Your task to perform on an android device: toggle notifications settings in the gmail app Image 0: 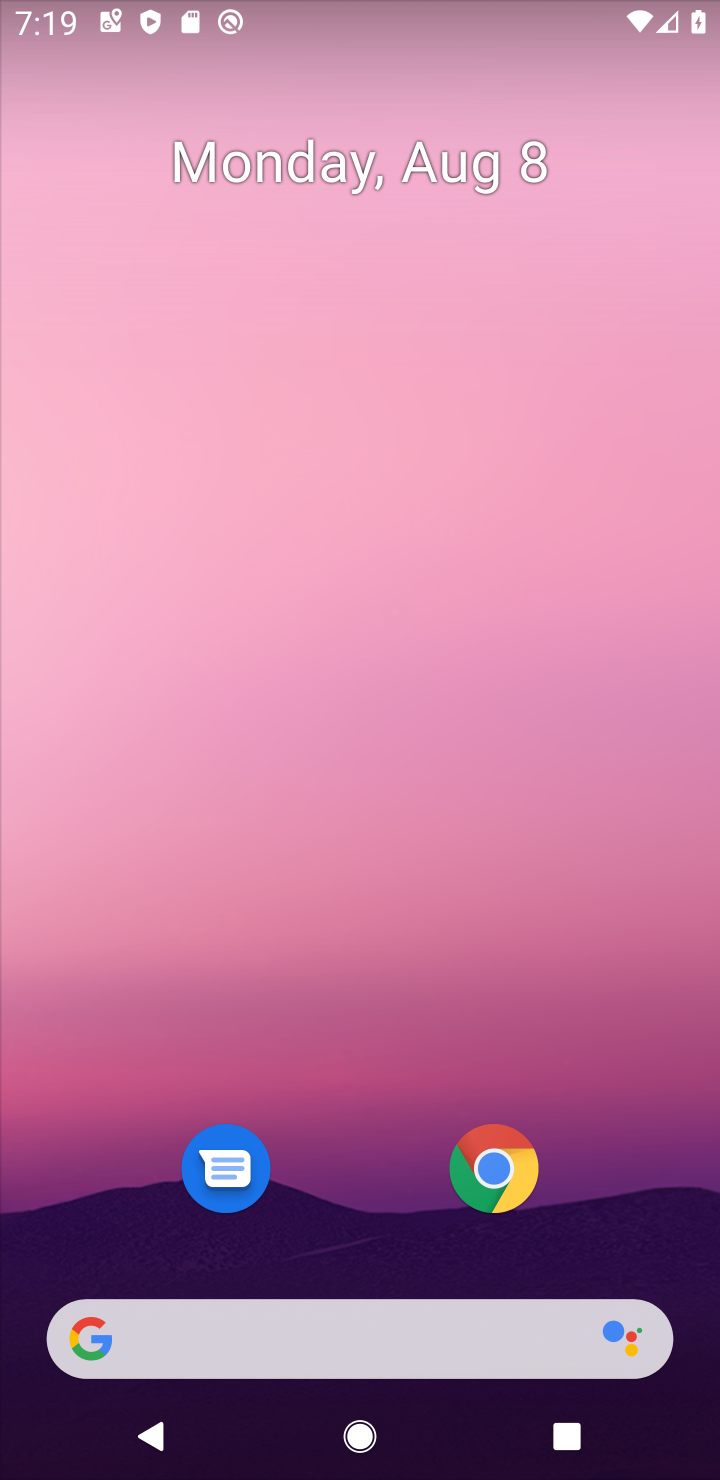
Step 0: drag from (619, 1249) to (290, 49)
Your task to perform on an android device: toggle notifications settings in the gmail app Image 1: 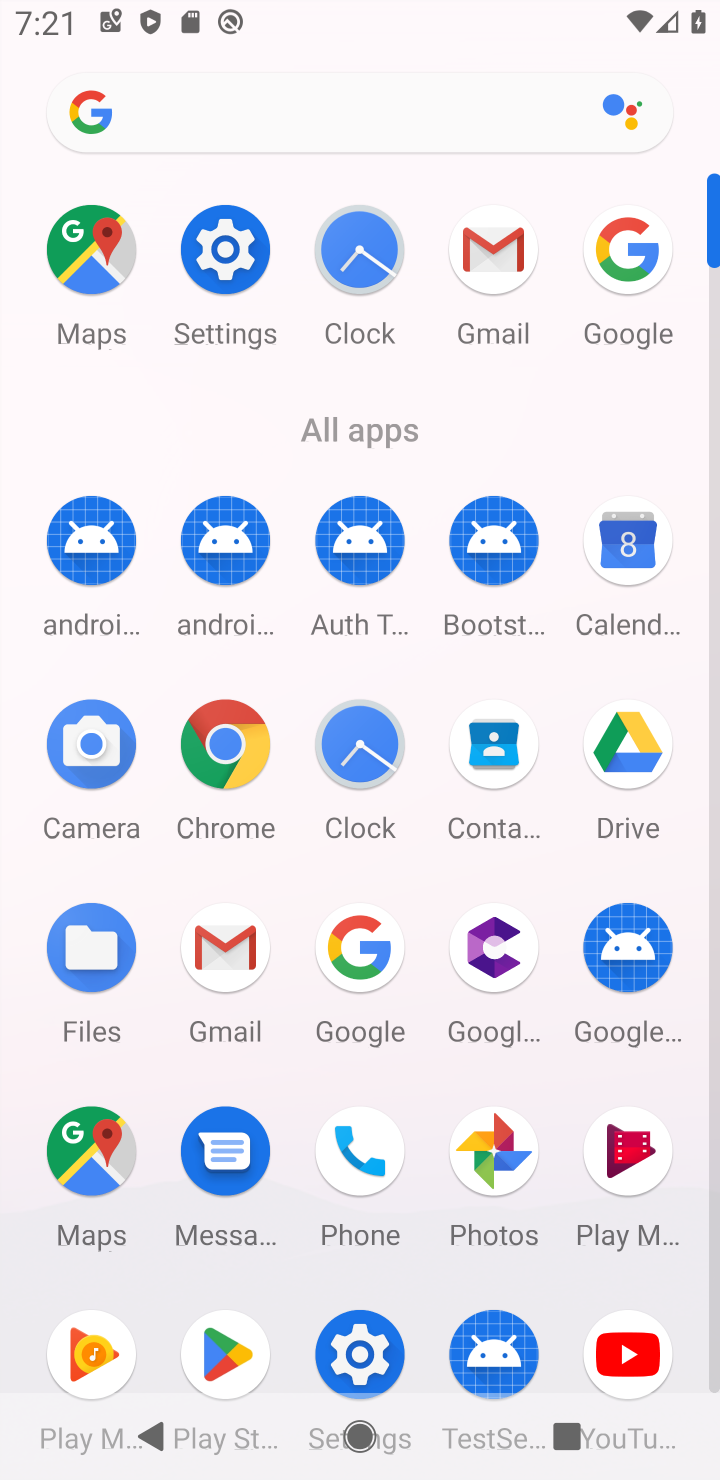
Step 1: click (247, 966)
Your task to perform on an android device: toggle notifications settings in the gmail app Image 2: 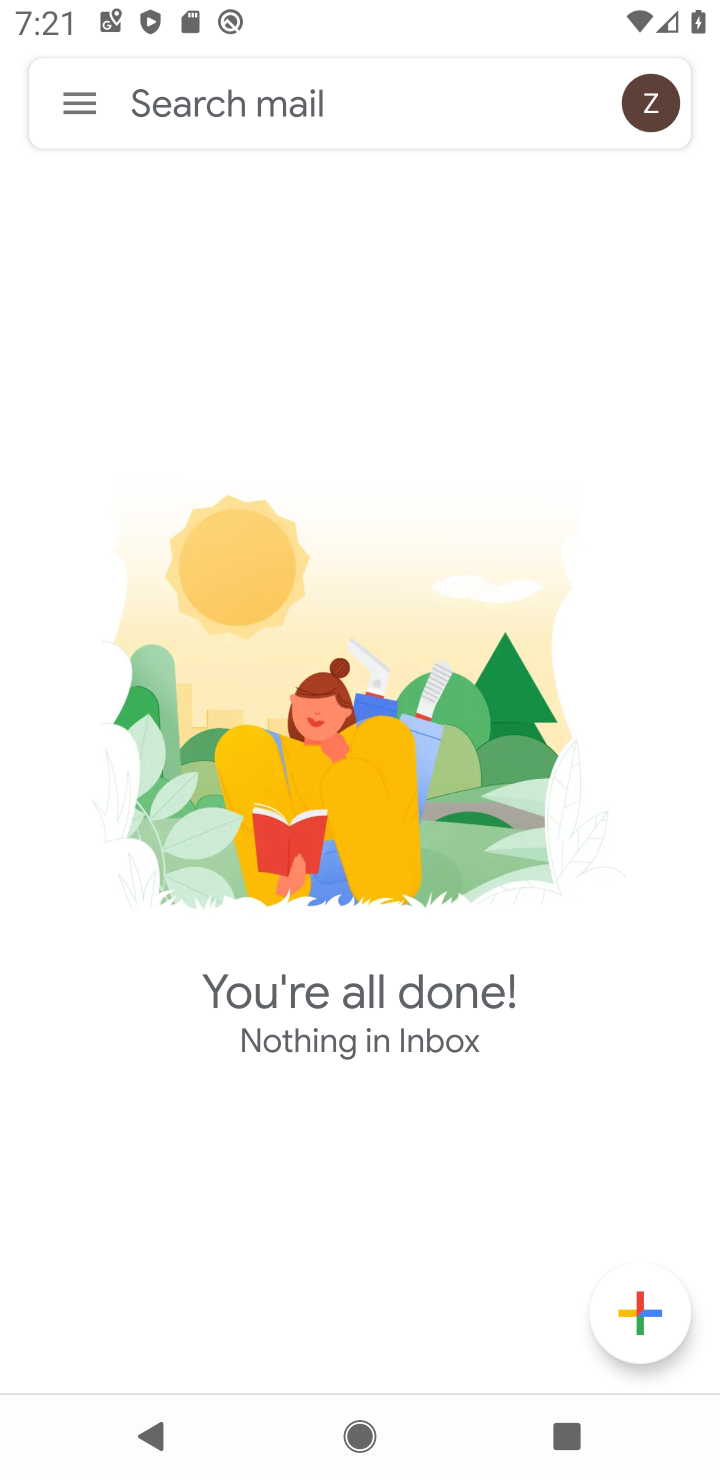
Step 2: click (85, 102)
Your task to perform on an android device: toggle notifications settings in the gmail app Image 3: 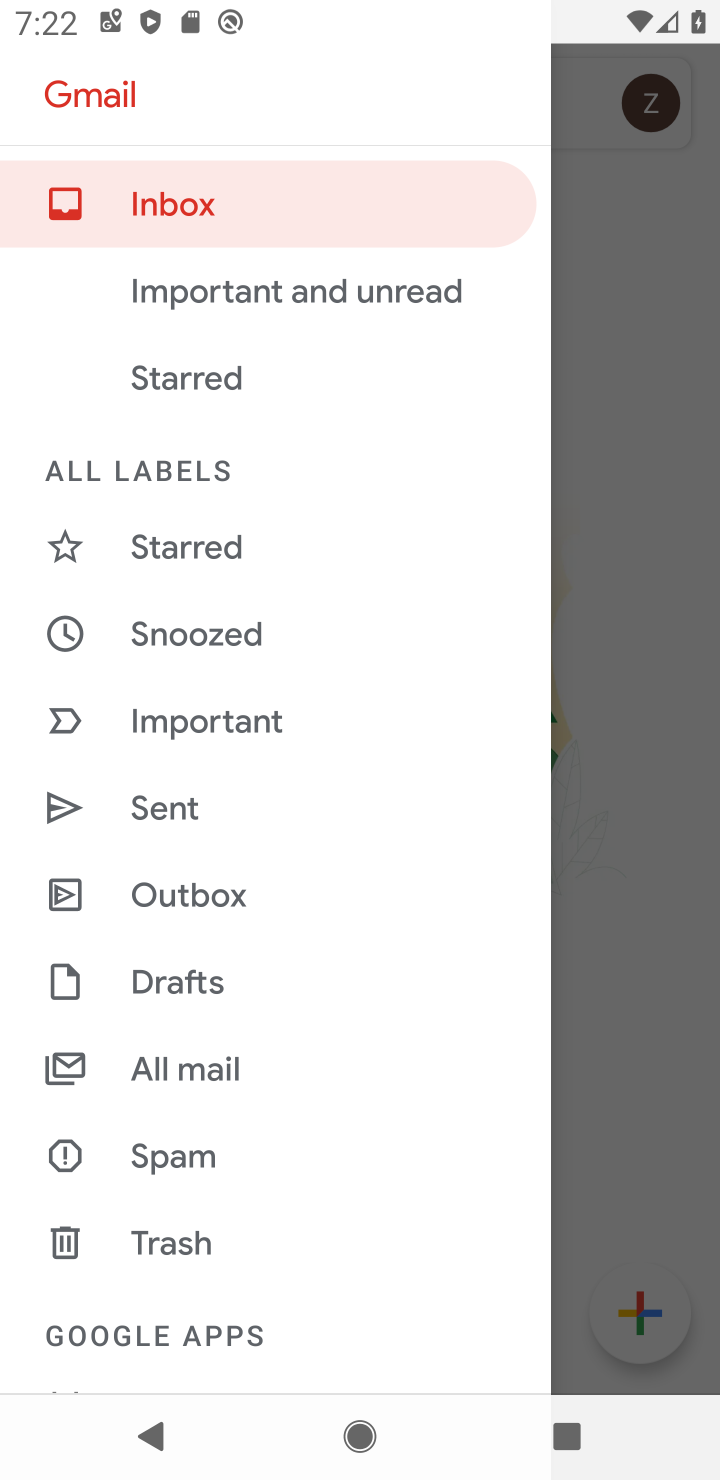
Step 3: drag from (229, 1152) to (258, 167)
Your task to perform on an android device: toggle notifications settings in the gmail app Image 4: 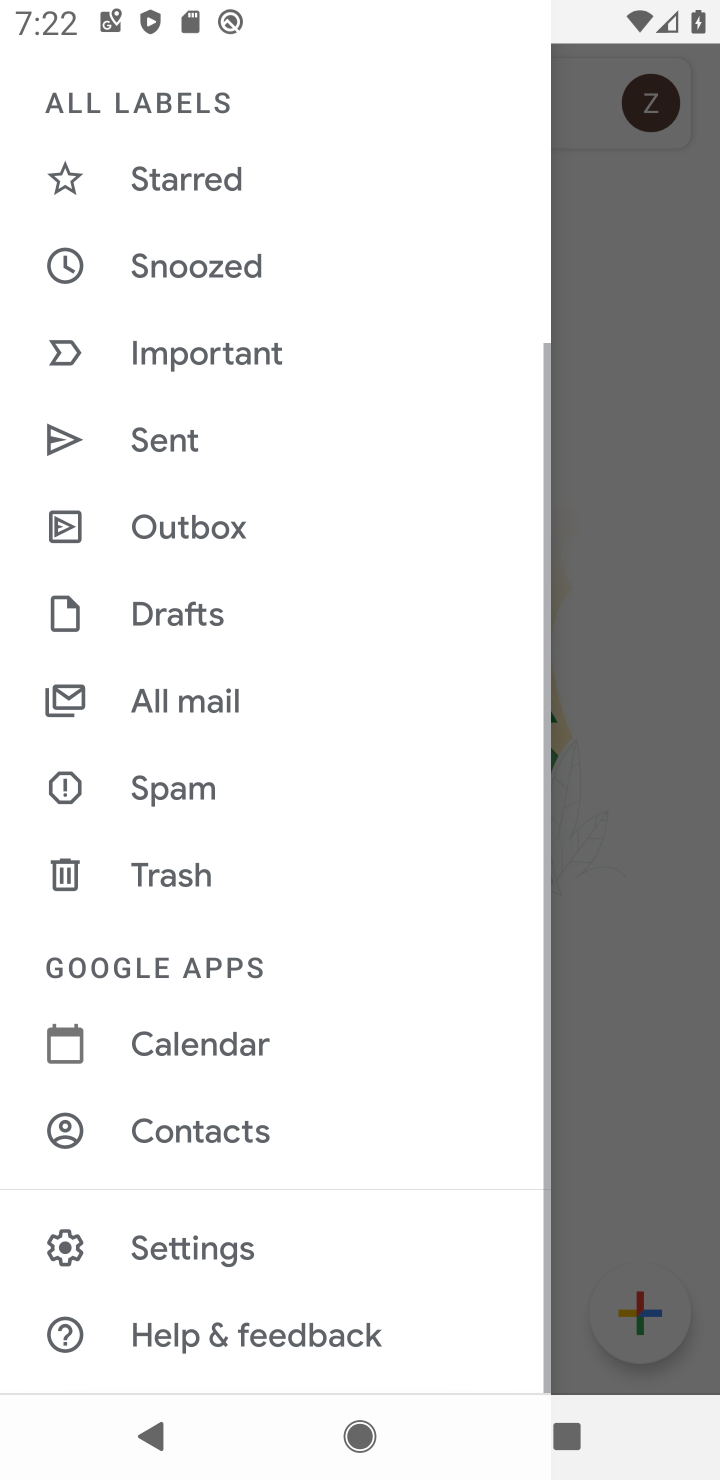
Step 4: click (260, 1254)
Your task to perform on an android device: toggle notifications settings in the gmail app Image 5: 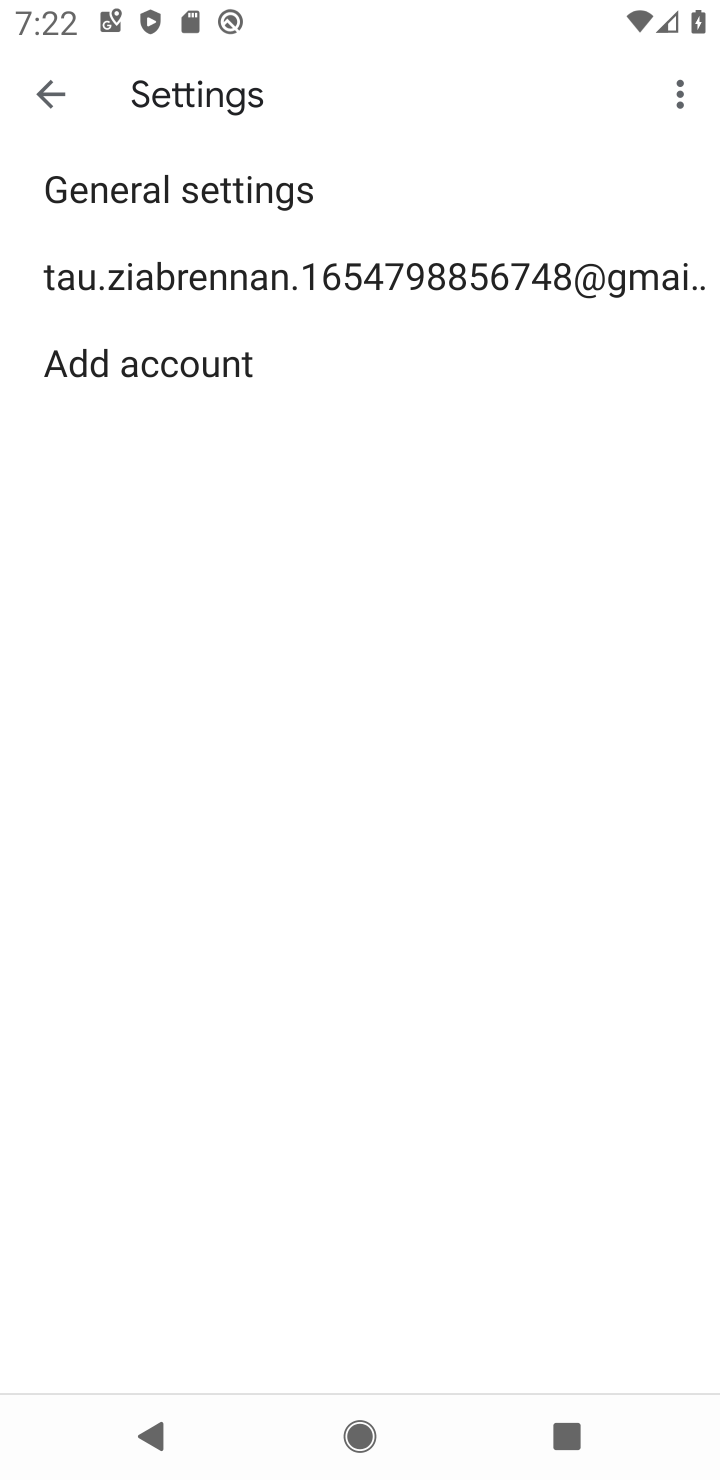
Step 5: click (439, 291)
Your task to perform on an android device: toggle notifications settings in the gmail app Image 6: 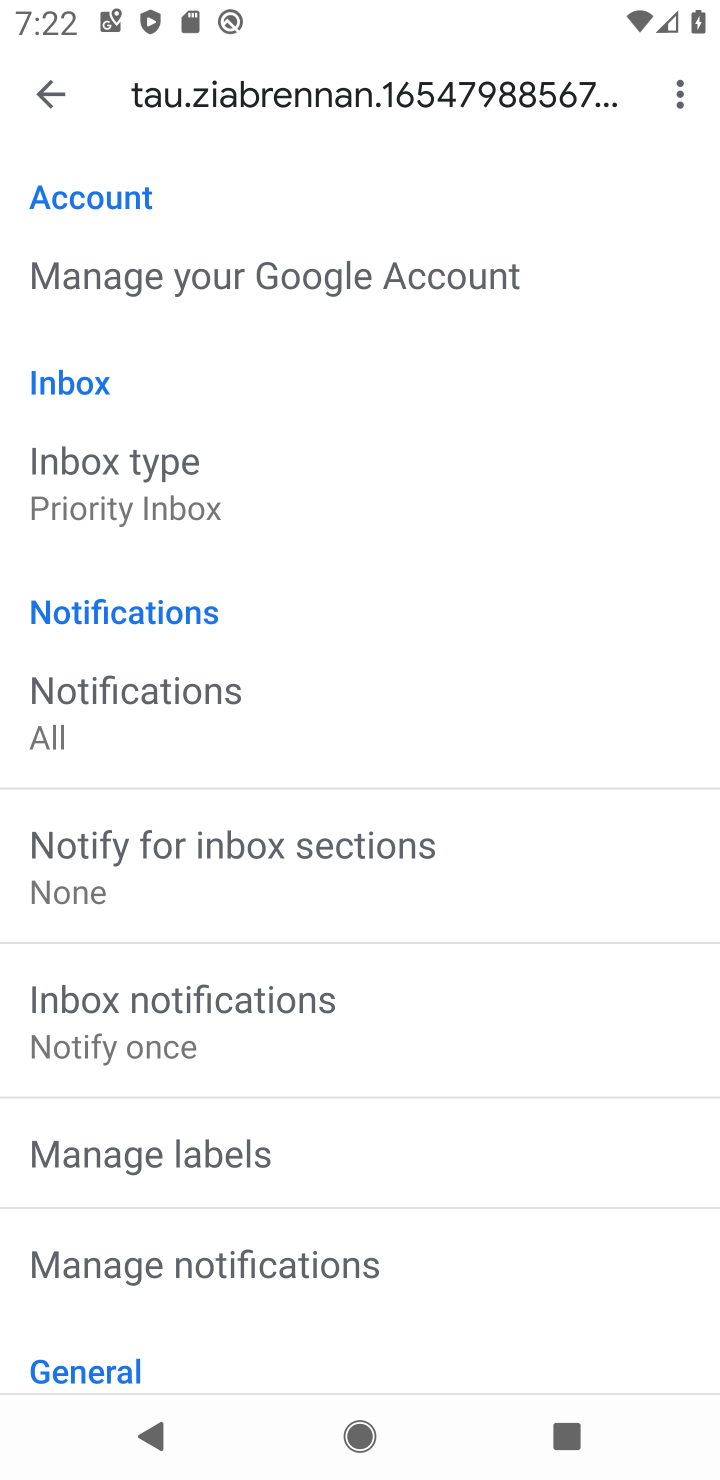
Step 6: click (115, 764)
Your task to perform on an android device: toggle notifications settings in the gmail app Image 7: 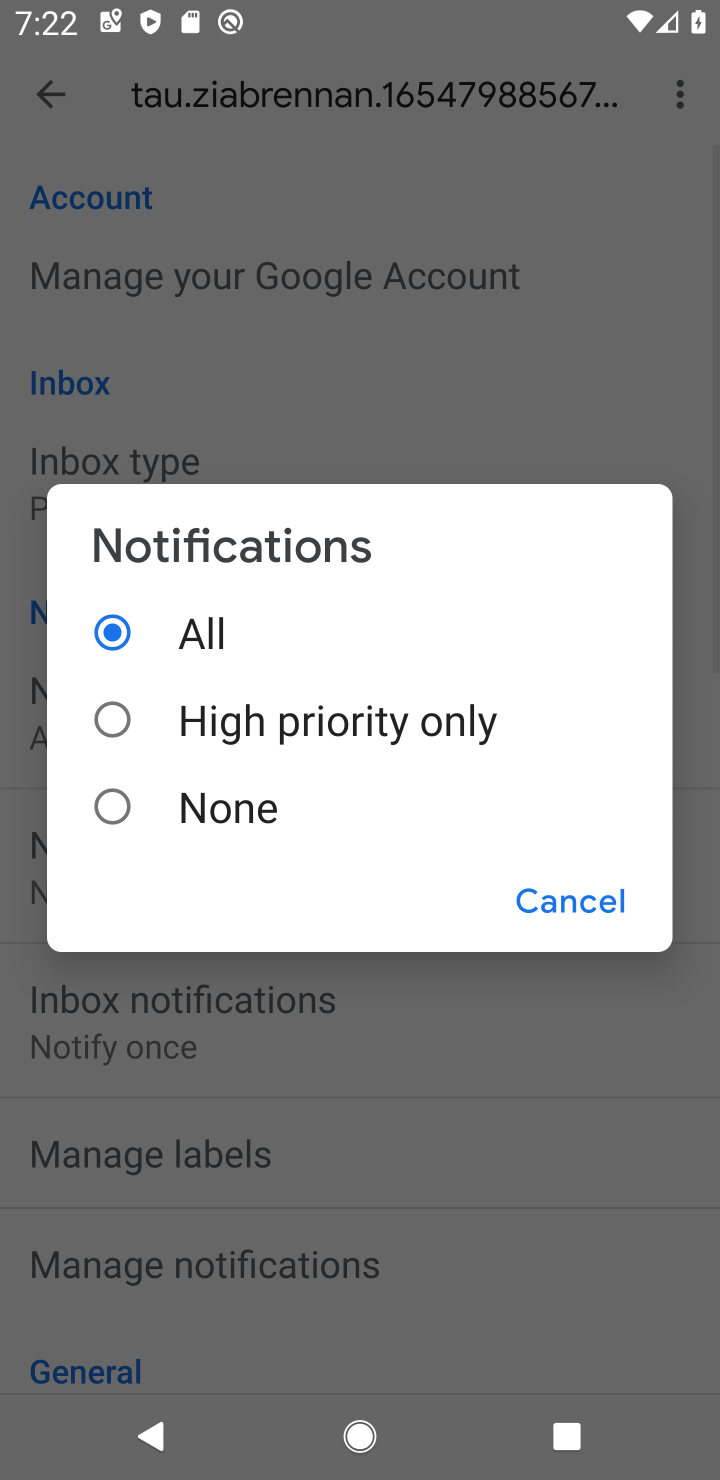
Step 7: click (178, 813)
Your task to perform on an android device: toggle notifications settings in the gmail app Image 8: 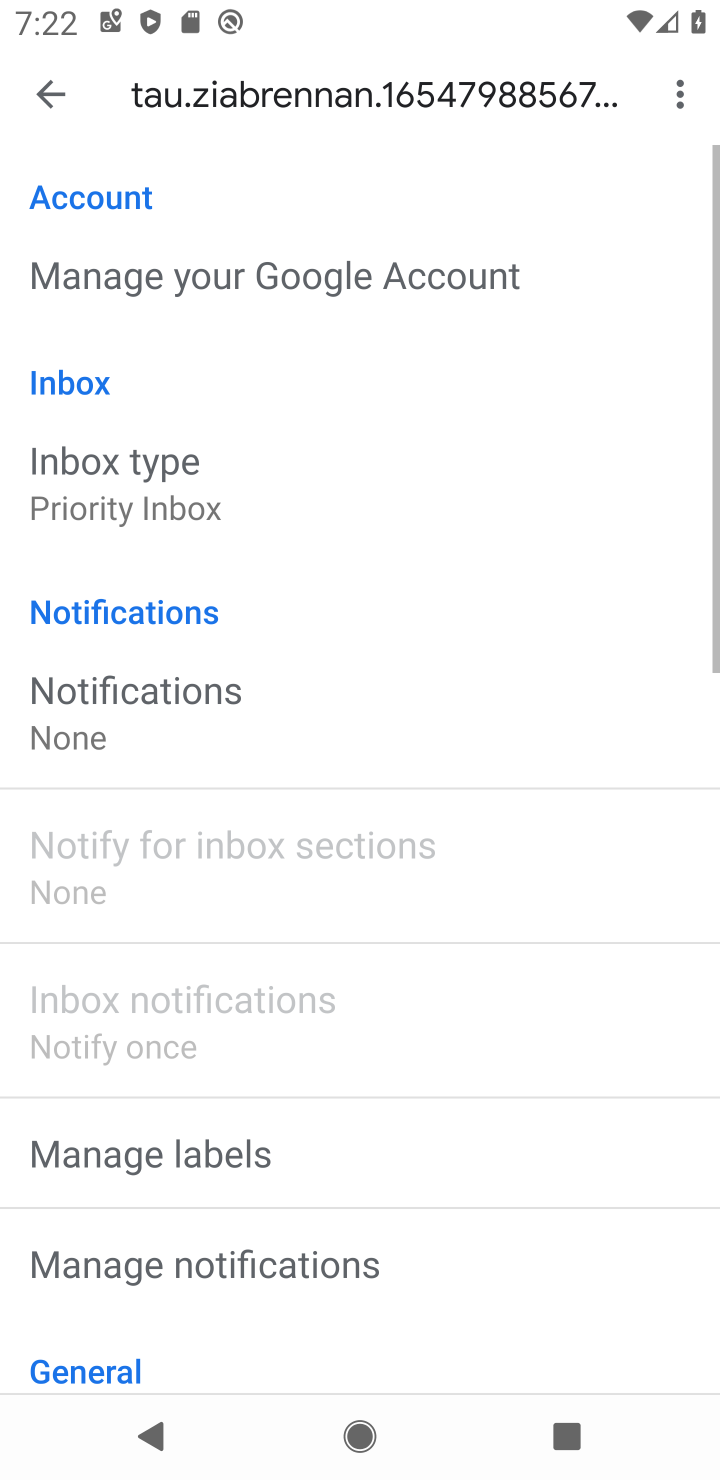
Step 8: task complete